Your task to perform on an android device: set the stopwatch Image 0: 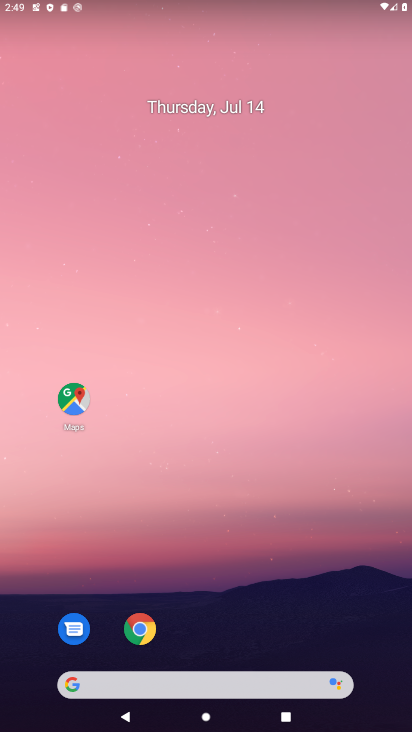
Step 0: drag from (244, 643) to (256, 161)
Your task to perform on an android device: set the stopwatch Image 1: 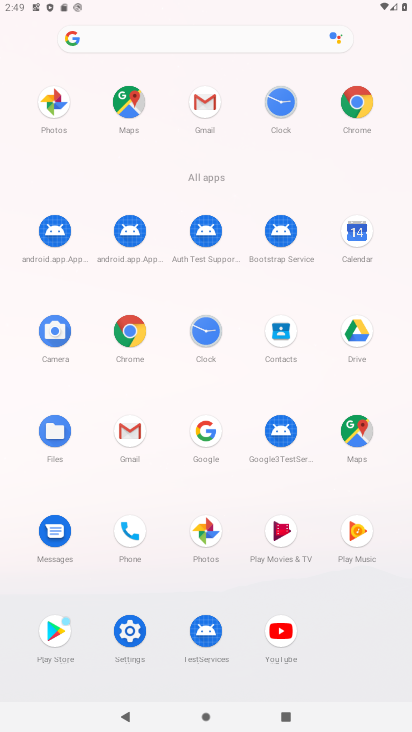
Step 1: click (286, 107)
Your task to perform on an android device: set the stopwatch Image 2: 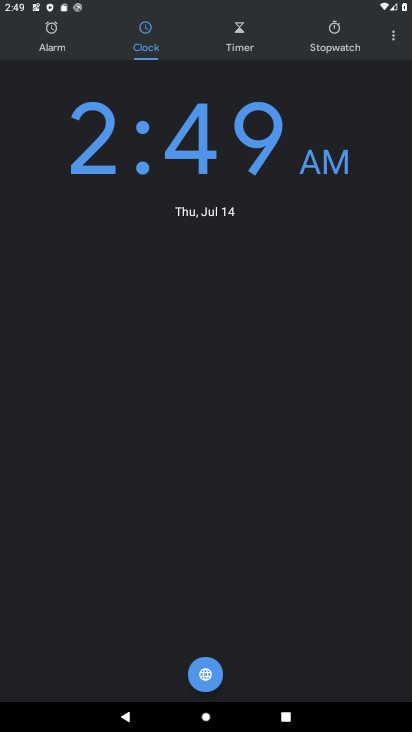
Step 2: click (341, 50)
Your task to perform on an android device: set the stopwatch Image 3: 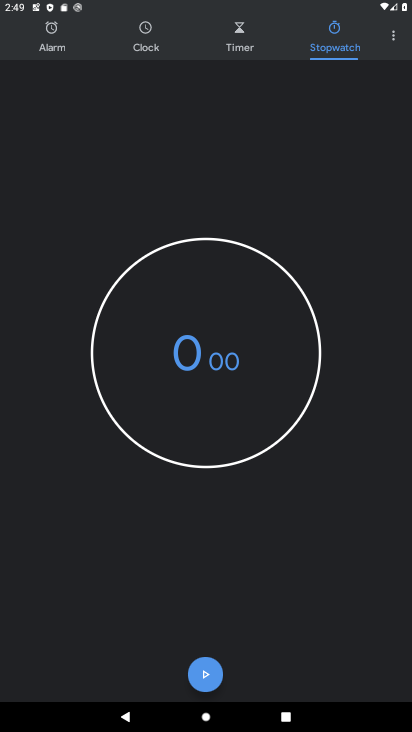
Step 3: click (197, 671)
Your task to perform on an android device: set the stopwatch Image 4: 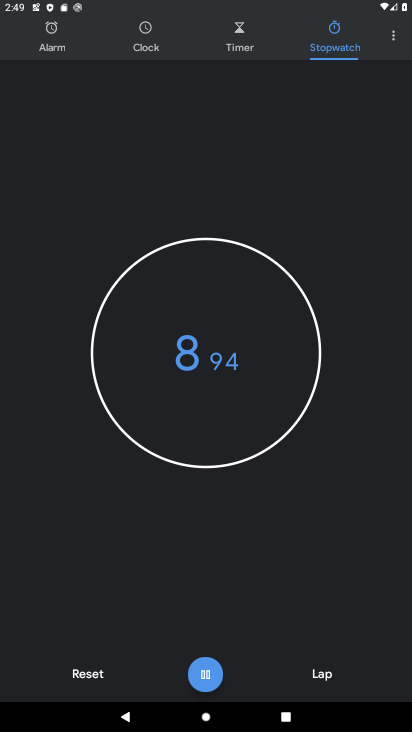
Step 4: task complete